Your task to perform on an android device: What's on my calendar tomorrow? Image 0: 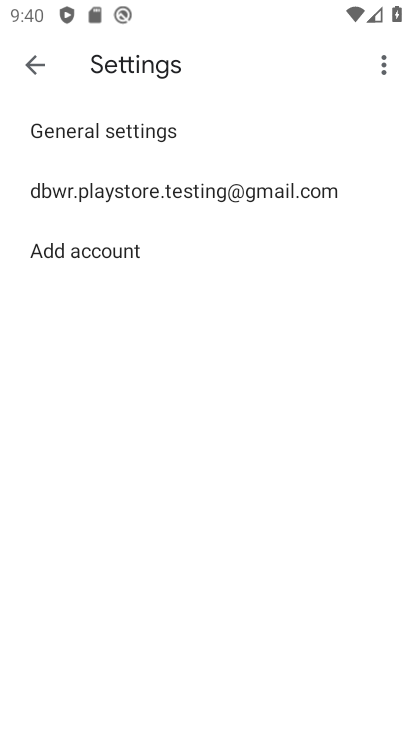
Step 0: press home button
Your task to perform on an android device: What's on my calendar tomorrow? Image 1: 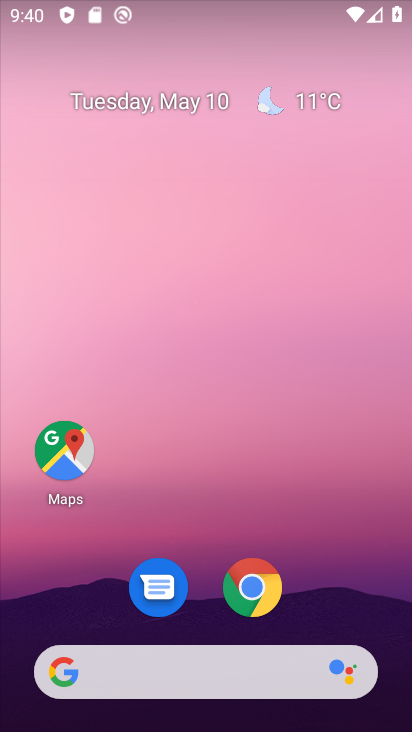
Step 1: drag from (210, 625) to (228, 2)
Your task to perform on an android device: What's on my calendar tomorrow? Image 2: 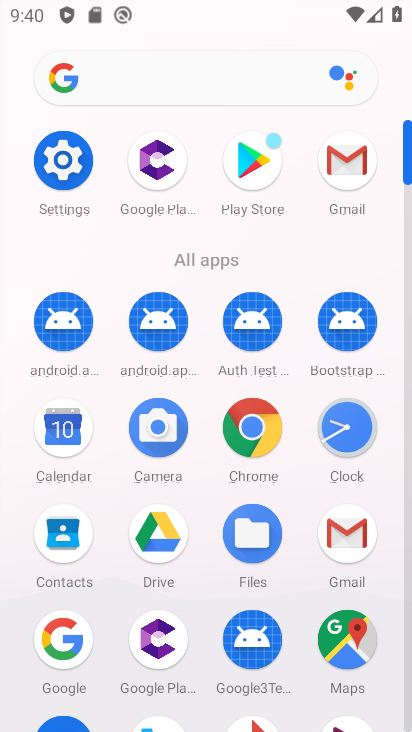
Step 2: click (68, 453)
Your task to perform on an android device: What's on my calendar tomorrow? Image 3: 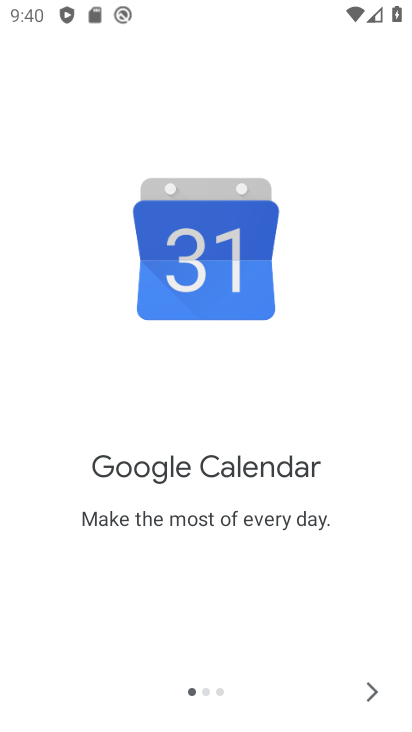
Step 3: click (367, 693)
Your task to perform on an android device: What's on my calendar tomorrow? Image 4: 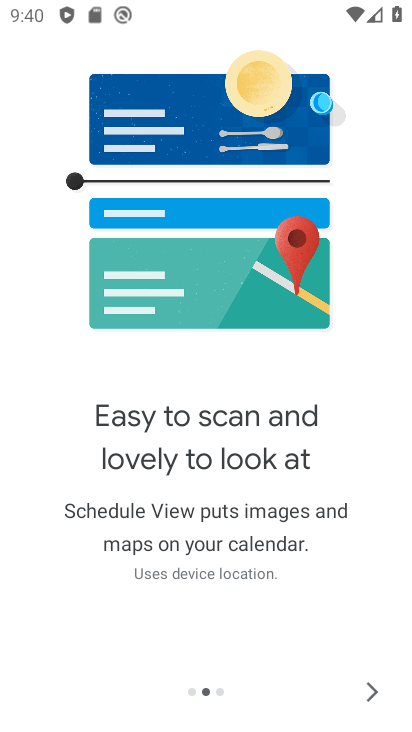
Step 4: click (367, 693)
Your task to perform on an android device: What's on my calendar tomorrow? Image 5: 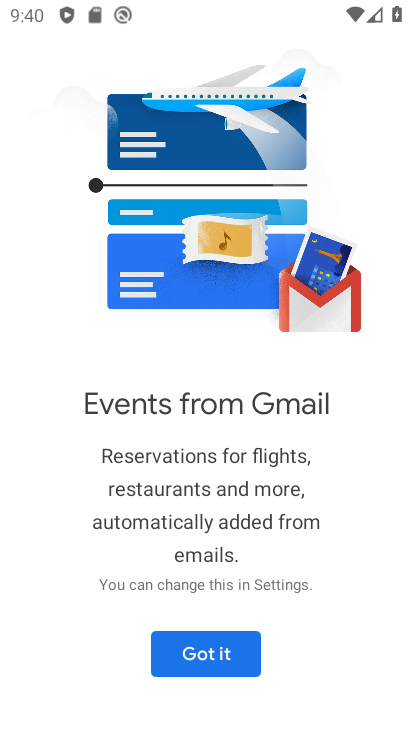
Step 5: click (219, 666)
Your task to perform on an android device: What's on my calendar tomorrow? Image 6: 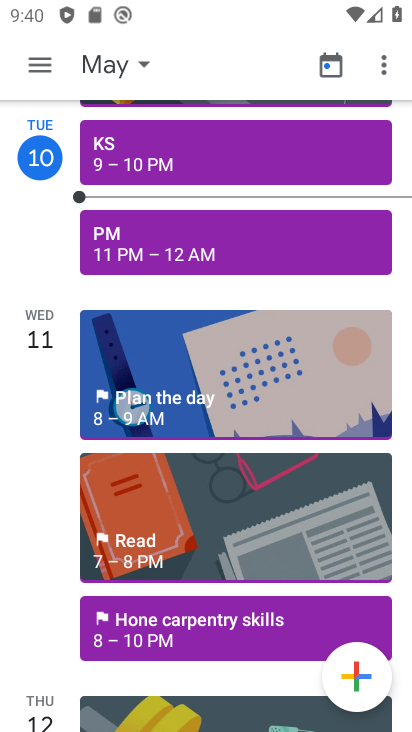
Step 6: click (36, 58)
Your task to perform on an android device: What's on my calendar tomorrow? Image 7: 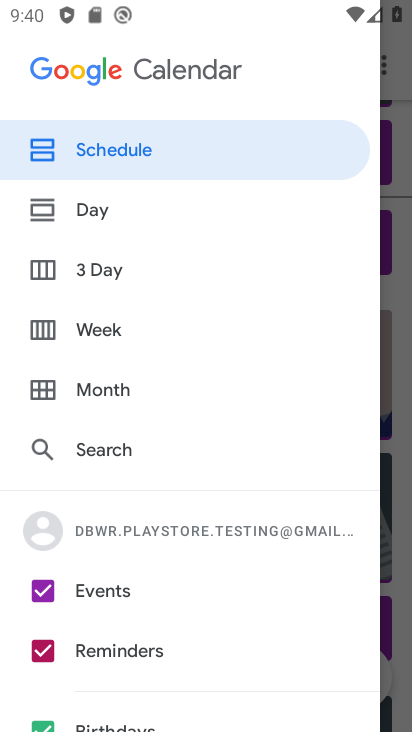
Step 7: click (143, 287)
Your task to perform on an android device: What's on my calendar tomorrow? Image 8: 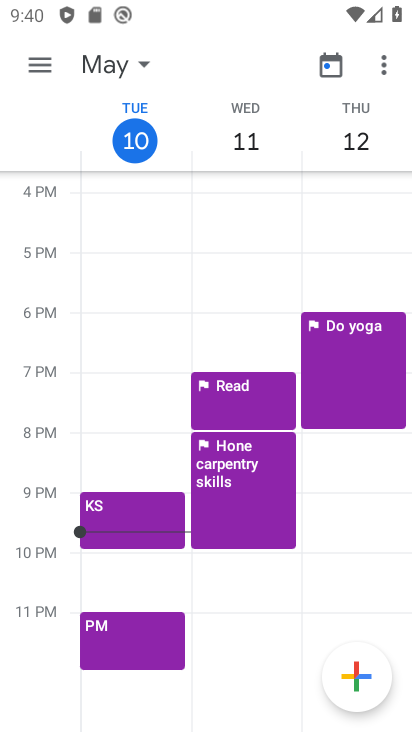
Step 8: task complete